Your task to perform on an android device: Go to CNN.com Image 0: 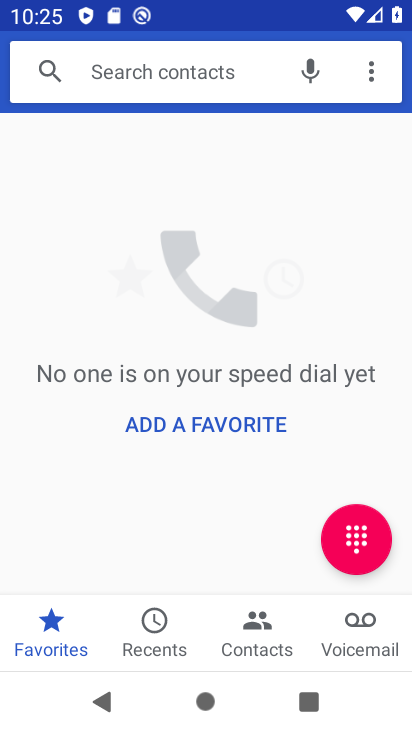
Step 0: press home button
Your task to perform on an android device: Go to CNN.com Image 1: 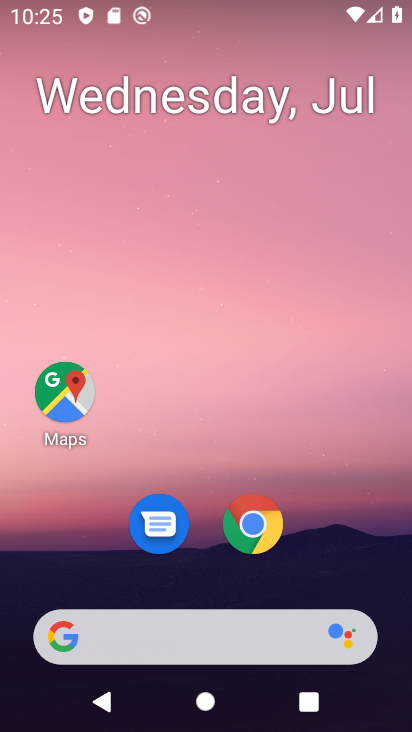
Step 1: click (255, 522)
Your task to perform on an android device: Go to CNN.com Image 2: 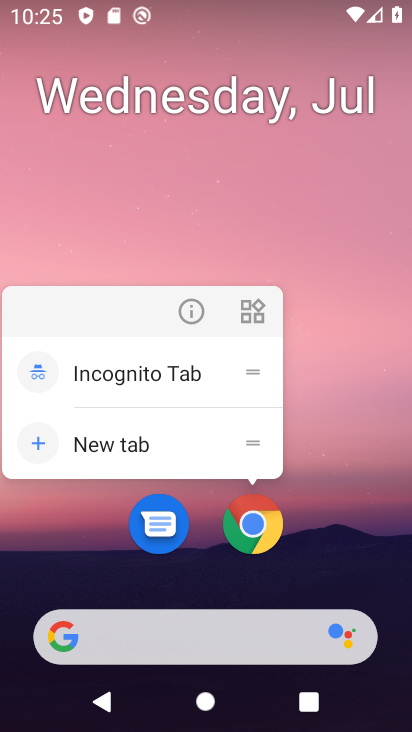
Step 2: click (261, 517)
Your task to perform on an android device: Go to CNN.com Image 3: 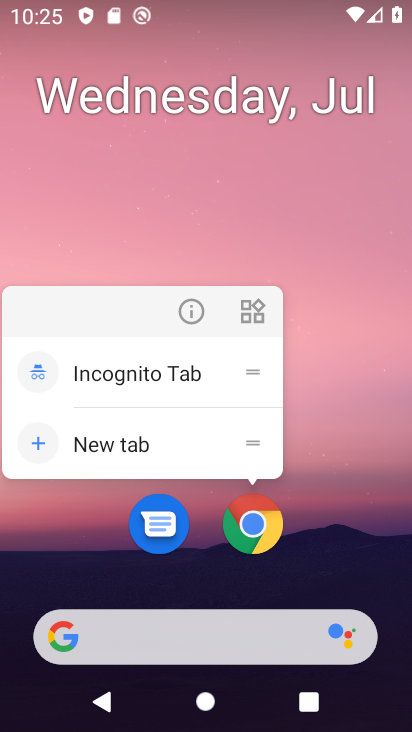
Step 3: click (251, 519)
Your task to perform on an android device: Go to CNN.com Image 4: 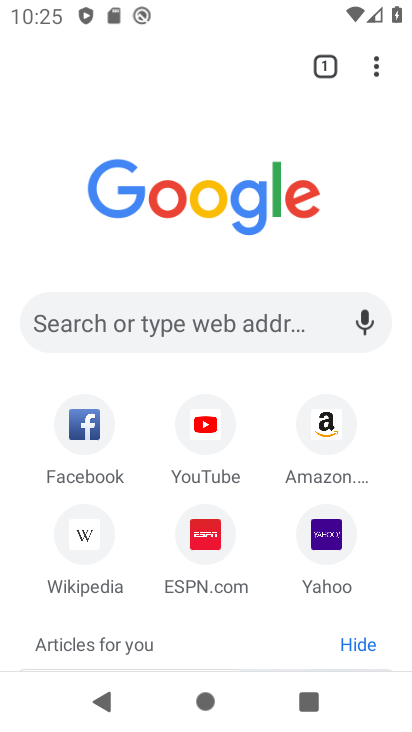
Step 4: click (168, 312)
Your task to perform on an android device: Go to CNN.com Image 5: 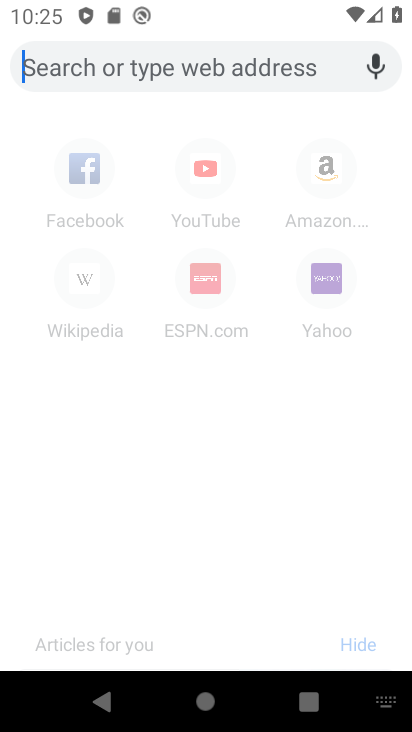
Step 5: type "cnn.com"
Your task to perform on an android device: Go to CNN.com Image 6: 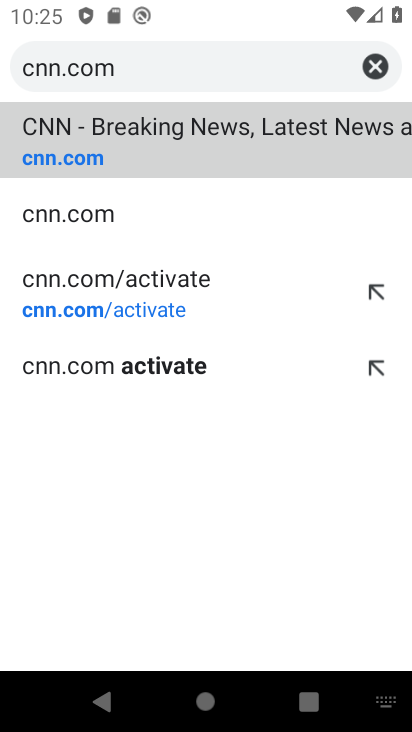
Step 6: click (142, 133)
Your task to perform on an android device: Go to CNN.com Image 7: 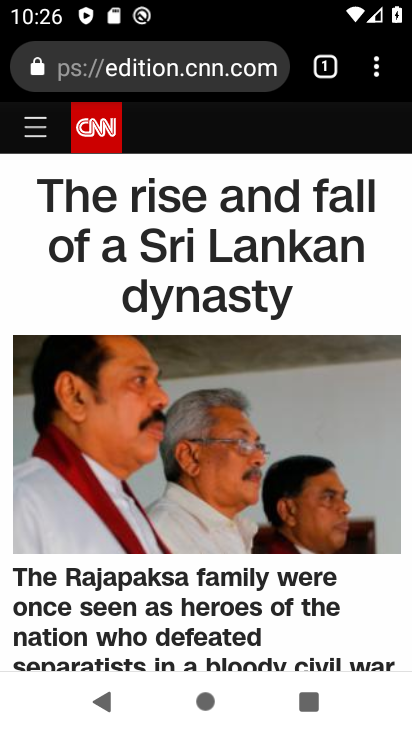
Step 7: drag from (268, 603) to (363, 184)
Your task to perform on an android device: Go to CNN.com Image 8: 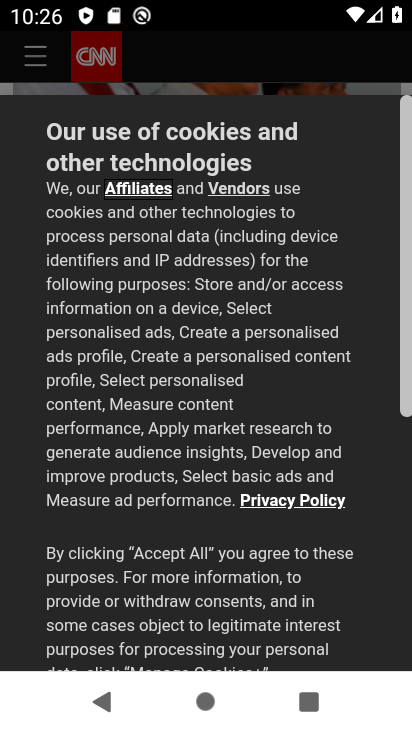
Step 8: drag from (302, 637) to (409, 90)
Your task to perform on an android device: Go to CNN.com Image 9: 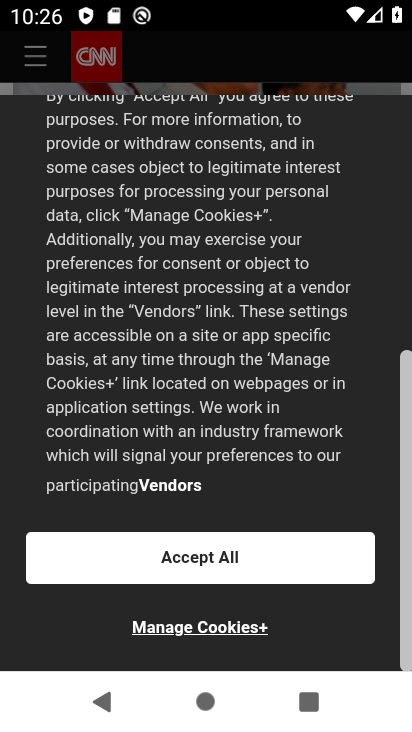
Step 9: click (292, 554)
Your task to perform on an android device: Go to CNN.com Image 10: 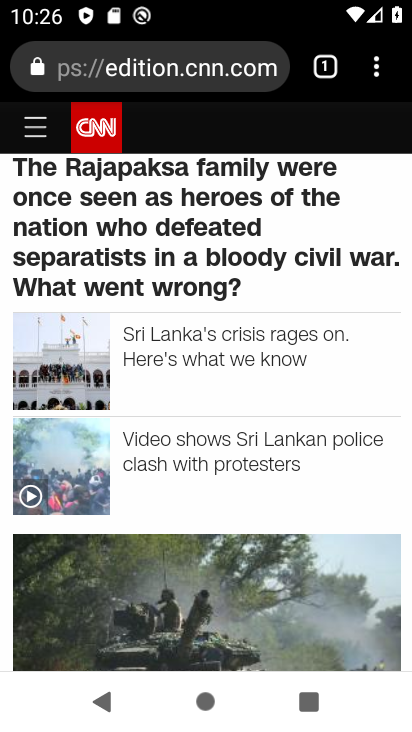
Step 10: task complete